Your task to perform on an android device: turn vacation reply on in the gmail app Image 0: 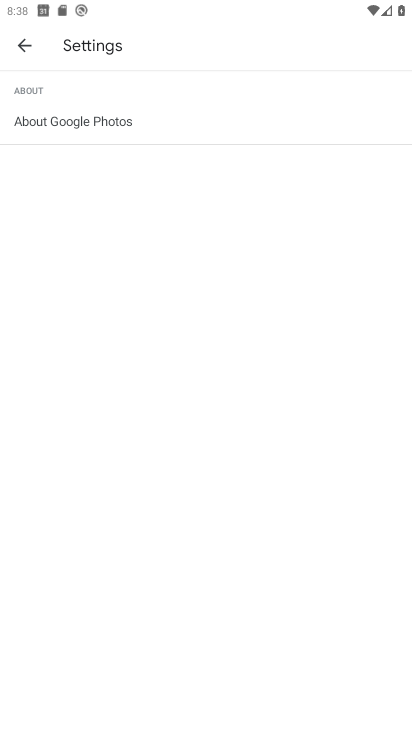
Step 0: press home button
Your task to perform on an android device: turn vacation reply on in the gmail app Image 1: 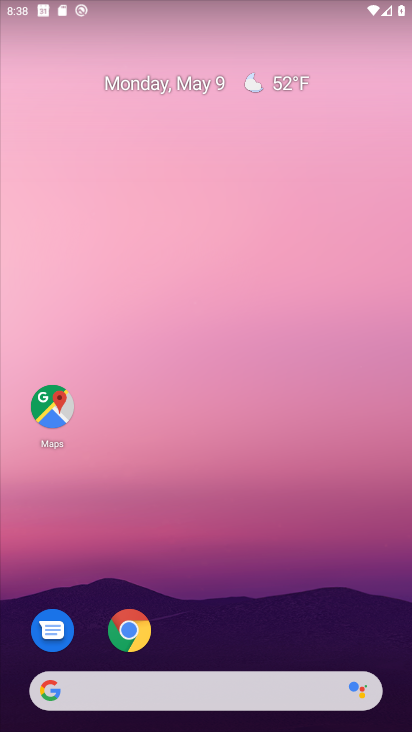
Step 1: drag from (221, 655) to (296, 127)
Your task to perform on an android device: turn vacation reply on in the gmail app Image 2: 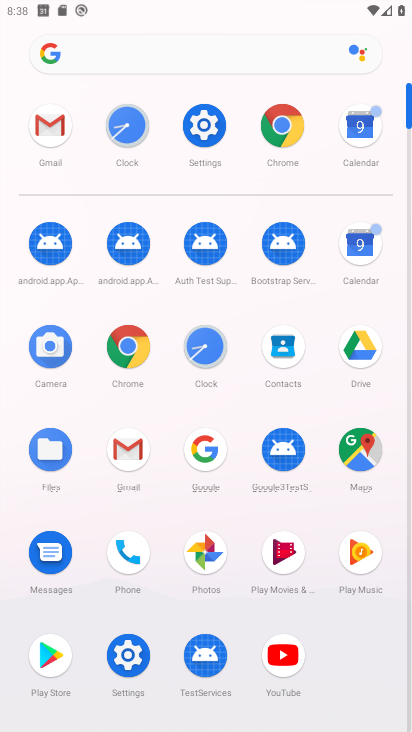
Step 2: click (122, 454)
Your task to perform on an android device: turn vacation reply on in the gmail app Image 3: 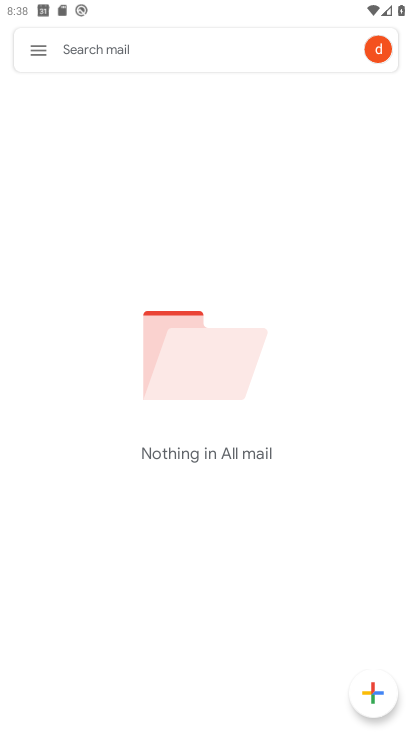
Step 3: click (46, 56)
Your task to perform on an android device: turn vacation reply on in the gmail app Image 4: 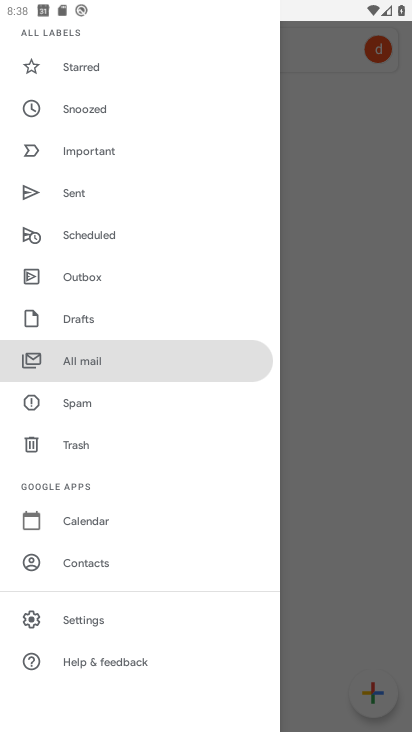
Step 4: click (92, 627)
Your task to perform on an android device: turn vacation reply on in the gmail app Image 5: 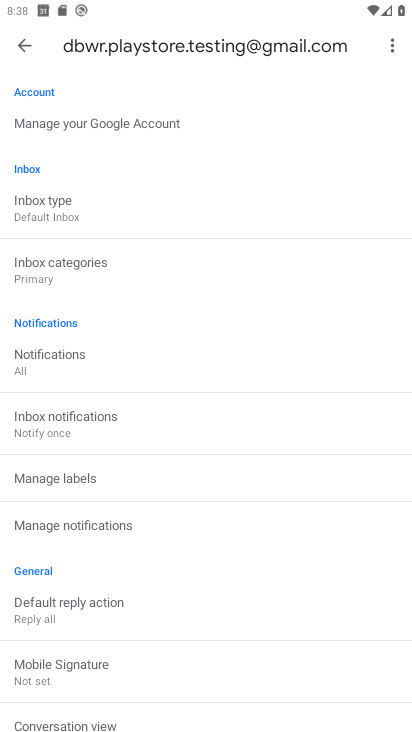
Step 5: drag from (194, 562) to (247, 223)
Your task to perform on an android device: turn vacation reply on in the gmail app Image 6: 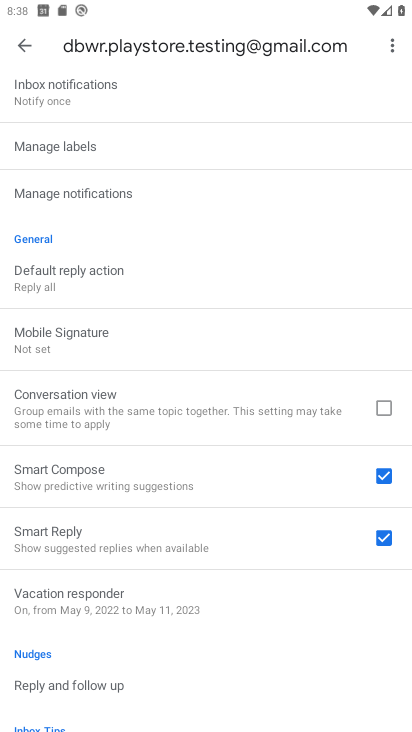
Step 6: click (92, 601)
Your task to perform on an android device: turn vacation reply on in the gmail app Image 7: 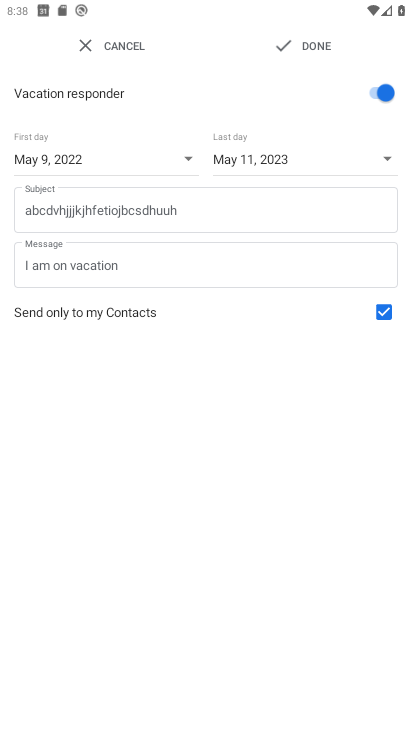
Step 7: task complete